Your task to perform on an android device: Open Reddit.com Image 0: 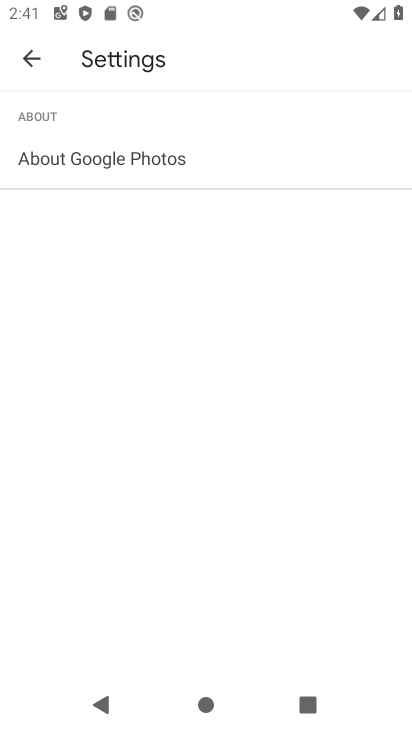
Step 0: press home button
Your task to perform on an android device: Open Reddit.com Image 1: 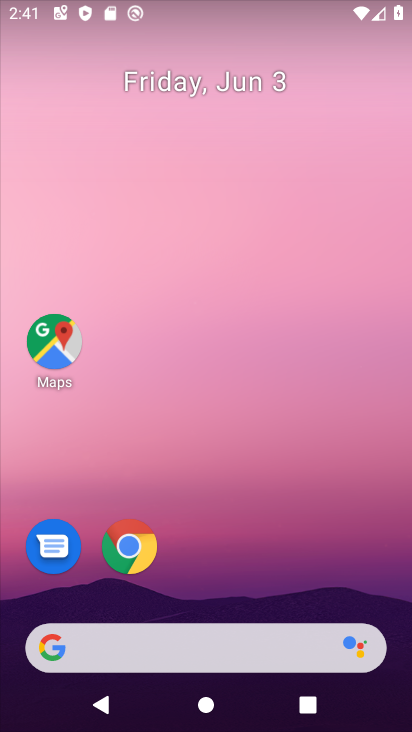
Step 1: click (117, 544)
Your task to perform on an android device: Open Reddit.com Image 2: 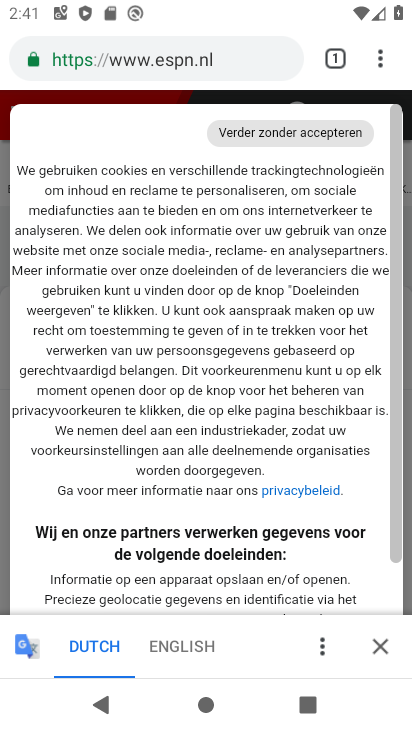
Step 2: click (154, 51)
Your task to perform on an android device: Open Reddit.com Image 3: 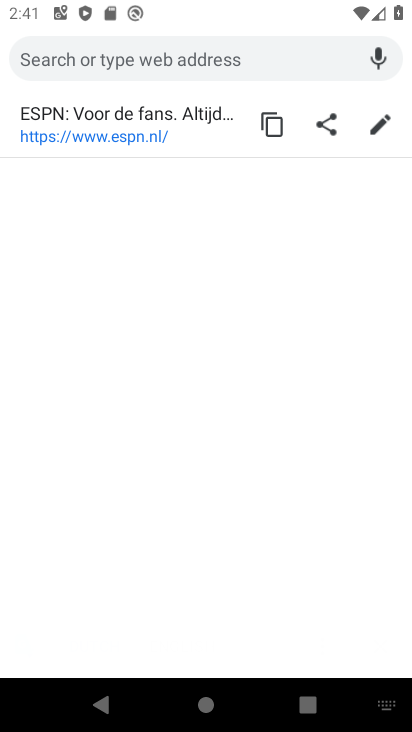
Step 3: type "Reddit.com"
Your task to perform on an android device: Open Reddit.com Image 4: 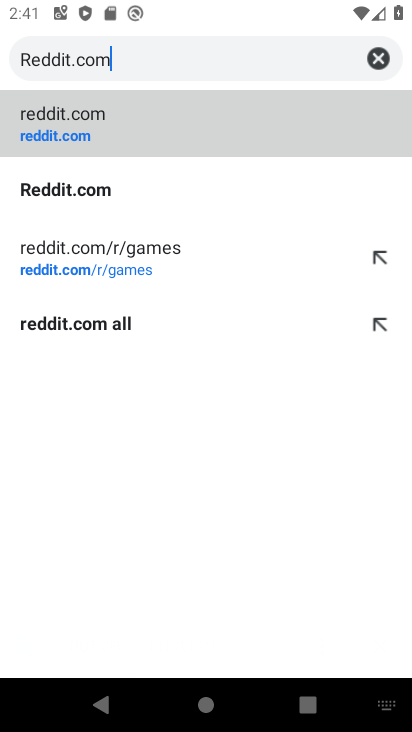
Step 4: click (14, 137)
Your task to perform on an android device: Open Reddit.com Image 5: 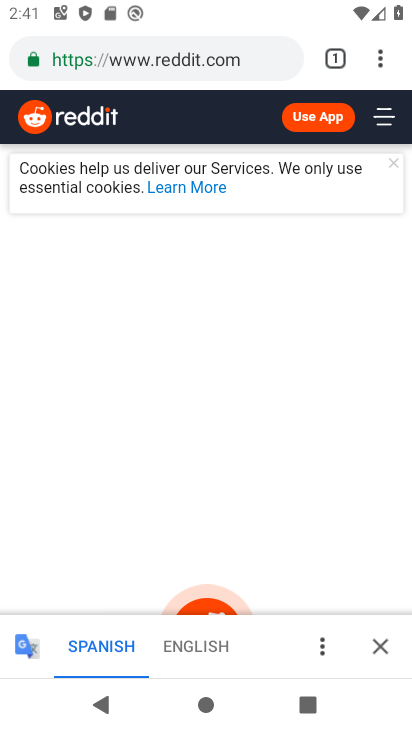
Step 5: task complete